Your task to perform on an android device: toggle improve location accuracy Image 0: 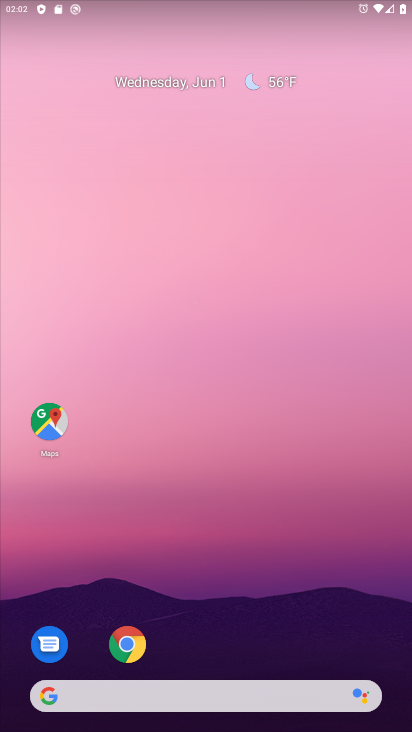
Step 0: drag from (218, 666) to (235, 274)
Your task to perform on an android device: toggle improve location accuracy Image 1: 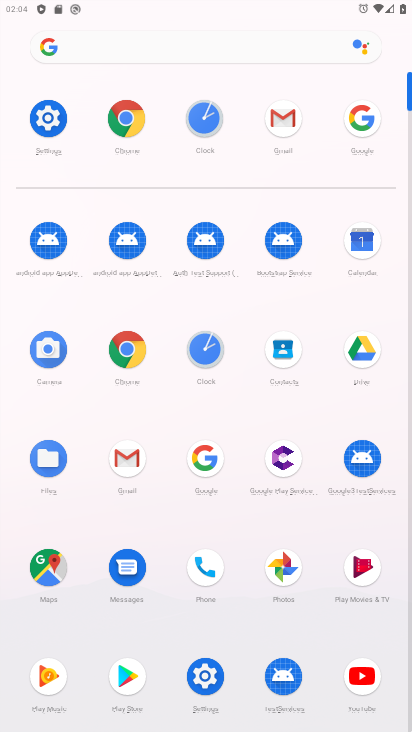
Step 1: click (209, 682)
Your task to perform on an android device: toggle improve location accuracy Image 2: 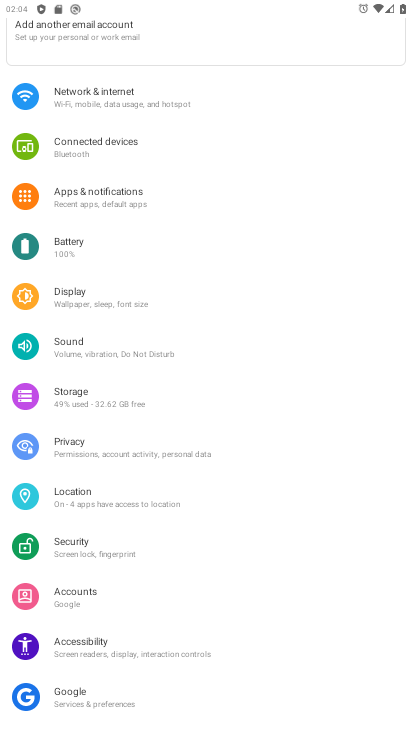
Step 2: click (71, 498)
Your task to perform on an android device: toggle improve location accuracy Image 3: 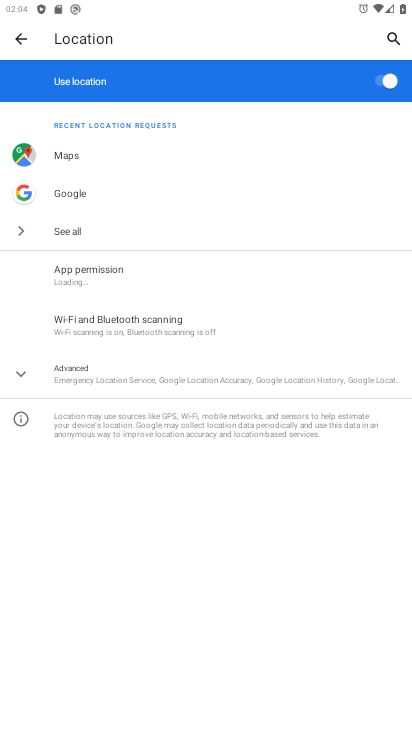
Step 3: click (83, 375)
Your task to perform on an android device: toggle improve location accuracy Image 4: 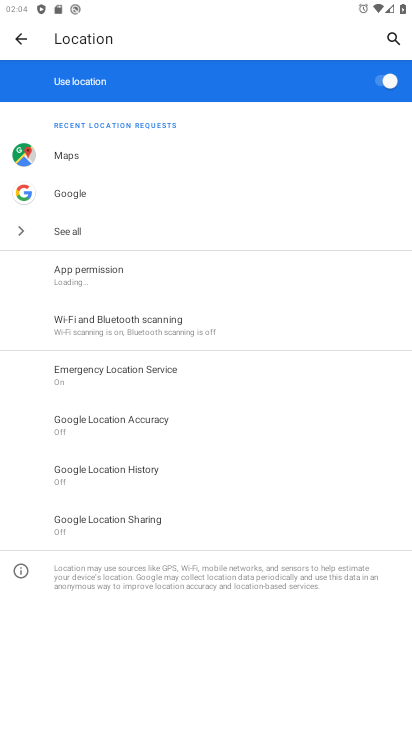
Step 4: click (121, 475)
Your task to perform on an android device: toggle improve location accuracy Image 5: 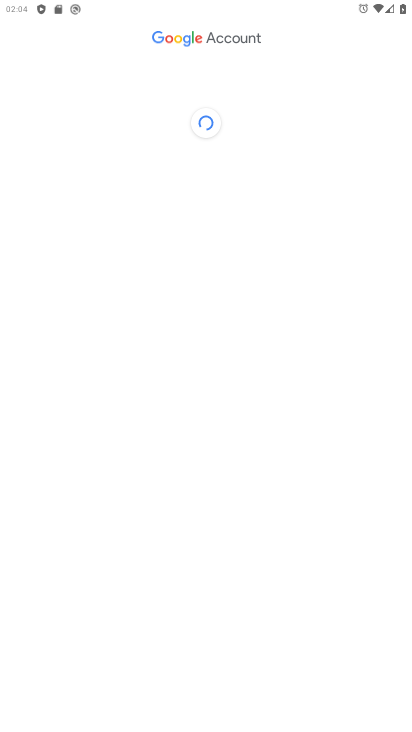
Step 5: press back button
Your task to perform on an android device: toggle improve location accuracy Image 6: 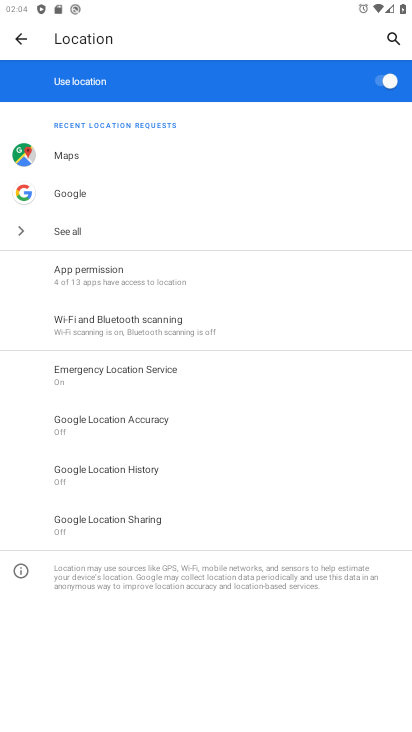
Step 6: click (143, 407)
Your task to perform on an android device: toggle improve location accuracy Image 7: 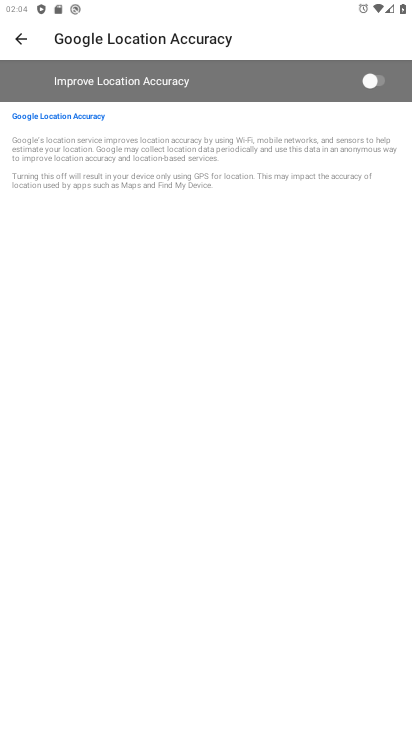
Step 7: click (384, 79)
Your task to perform on an android device: toggle improve location accuracy Image 8: 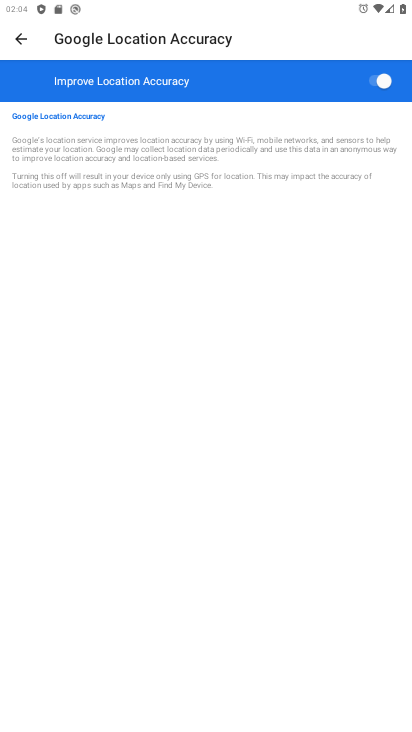
Step 8: task complete